Your task to perform on an android device: open wifi settings Image 0: 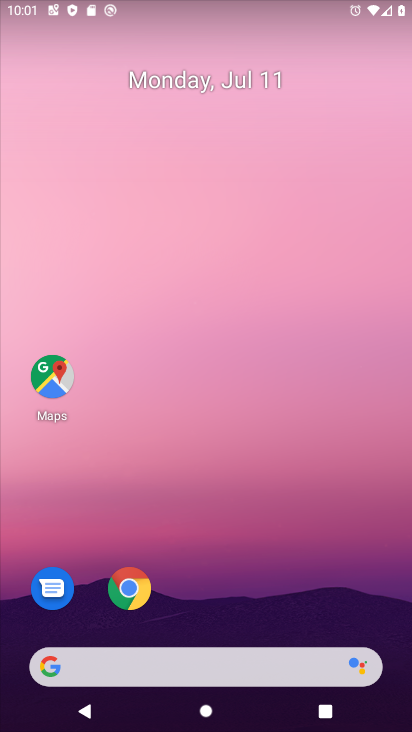
Step 0: drag from (86, 9) to (121, 549)
Your task to perform on an android device: open wifi settings Image 1: 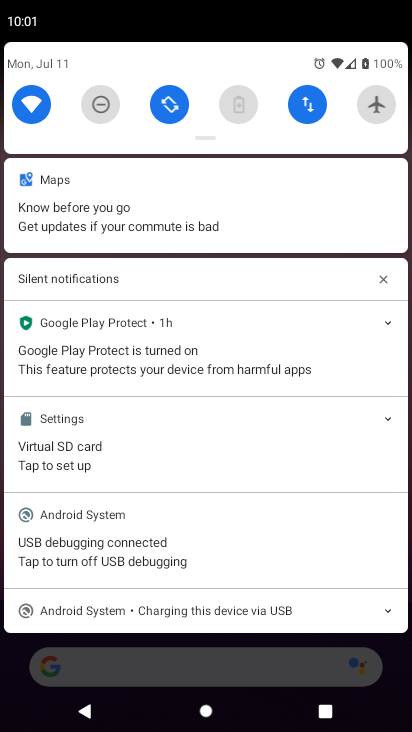
Step 1: click (24, 98)
Your task to perform on an android device: open wifi settings Image 2: 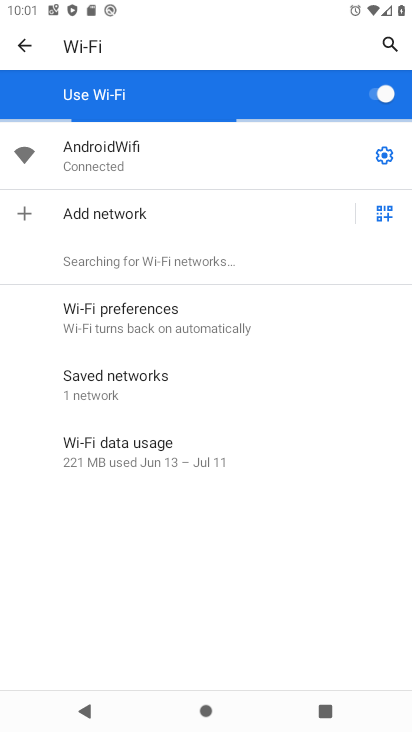
Step 2: task complete